Your task to perform on an android device: Open Yahoo.com Image 0: 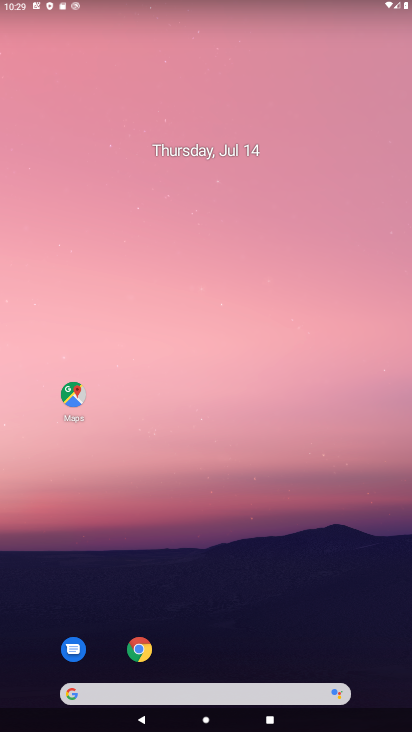
Step 0: click (129, 637)
Your task to perform on an android device: Open Yahoo.com Image 1: 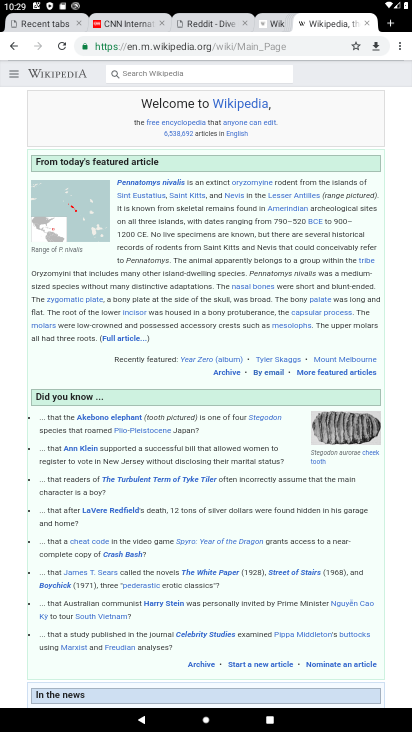
Step 1: click (389, 16)
Your task to perform on an android device: Open Yahoo.com Image 2: 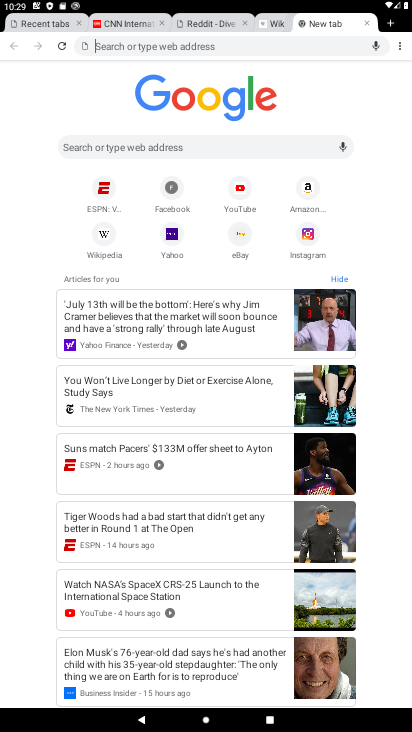
Step 2: click (172, 247)
Your task to perform on an android device: Open Yahoo.com Image 3: 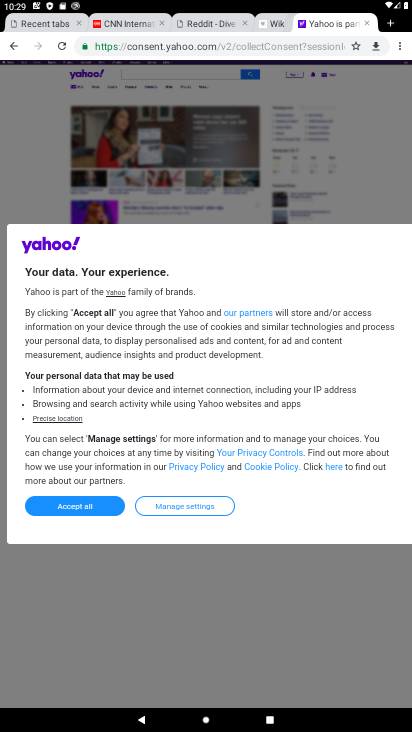
Step 3: task complete